Your task to perform on an android device: open the mobile data screen to see how much data has been used Image 0: 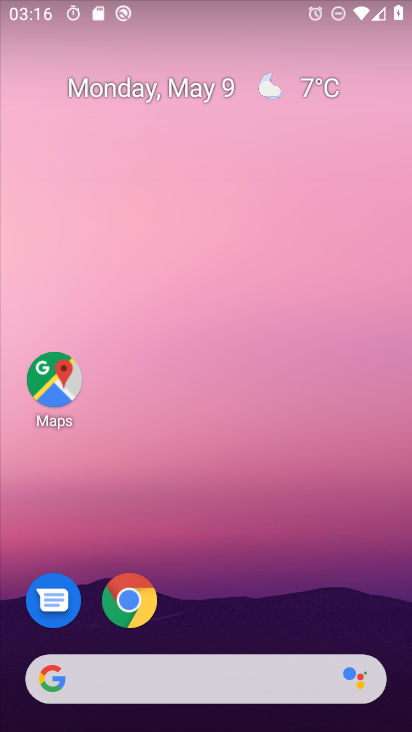
Step 0: drag from (199, 689) to (227, 219)
Your task to perform on an android device: open the mobile data screen to see how much data has been used Image 1: 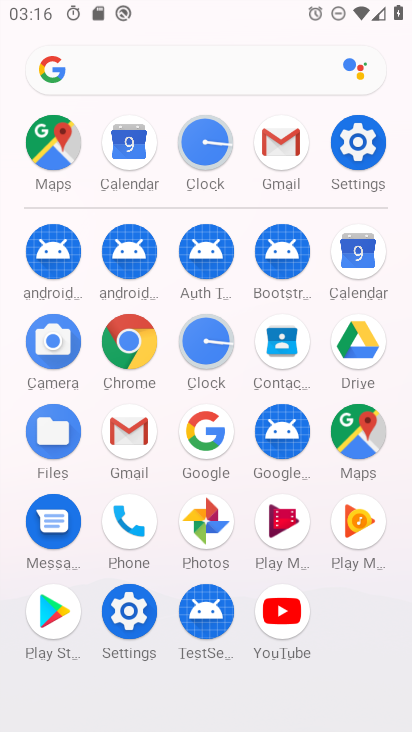
Step 1: click (369, 132)
Your task to perform on an android device: open the mobile data screen to see how much data has been used Image 2: 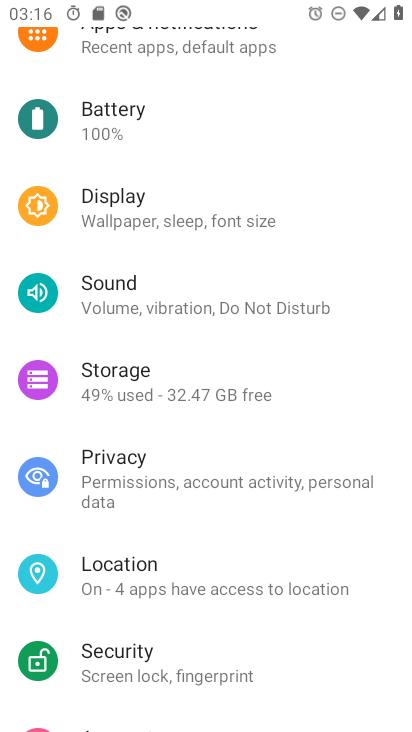
Step 2: drag from (214, 148) to (314, 550)
Your task to perform on an android device: open the mobile data screen to see how much data has been used Image 3: 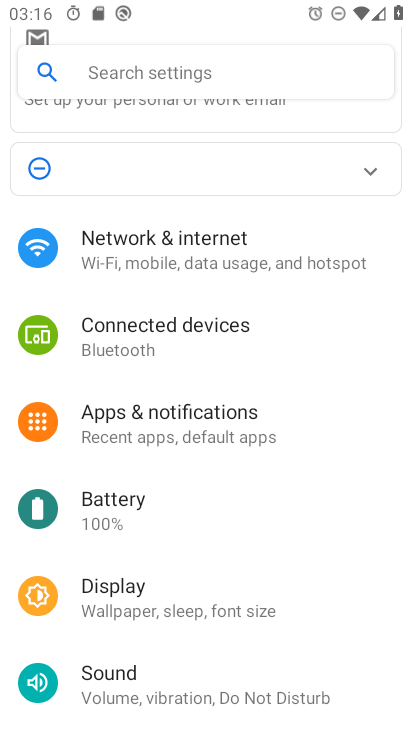
Step 3: click (182, 228)
Your task to perform on an android device: open the mobile data screen to see how much data has been used Image 4: 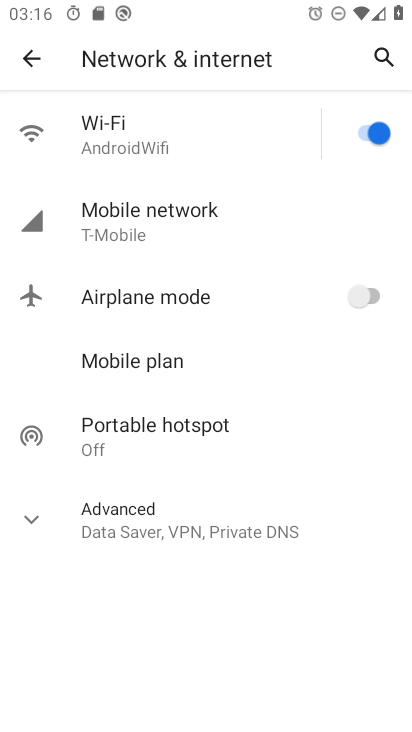
Step 4: click (208, 201)
Your task to perform on an android device: open the mobile data screen to see how much data has been used Image 5: 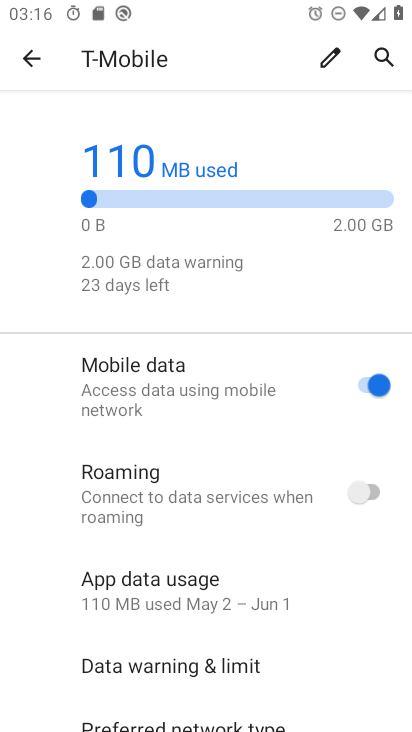
Step 5: task complete